Your task to perform on an android device: turn off location history Image 0: 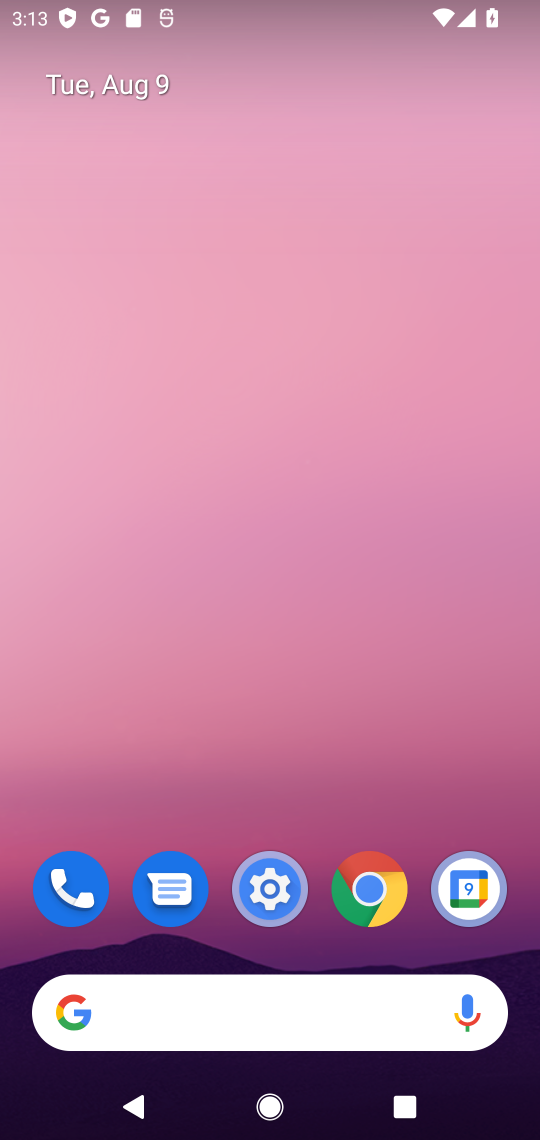
Step 0: click (273, 897)
Your task to perform on an android device: turn off location history Image 1: 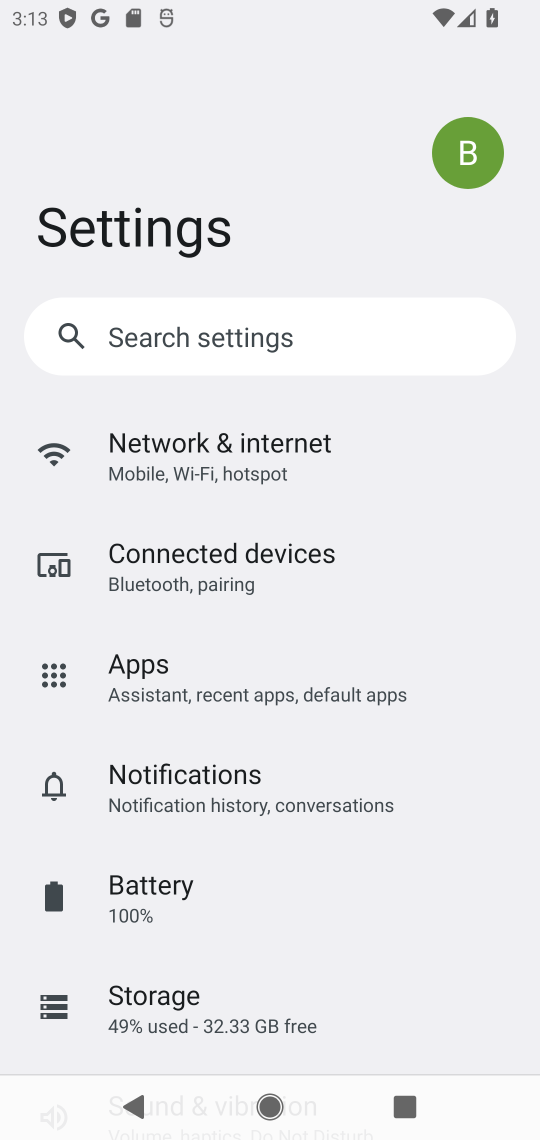
Step 1: drag from (296, 914) to (336, 27)
Your task to perform on an android device: turn off location history Image 2: 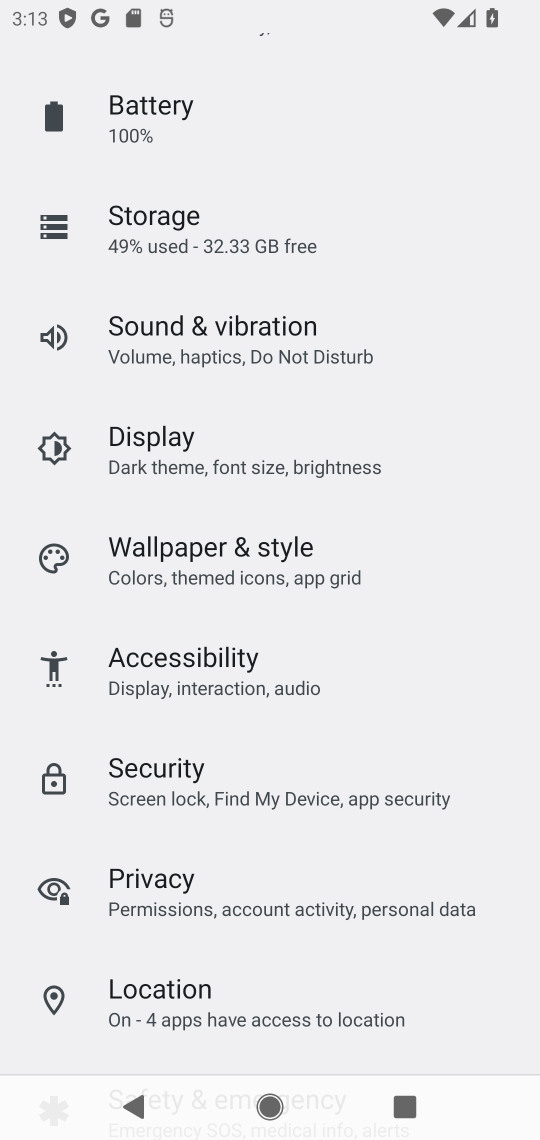
Step 2: click (288, 1003)
Your task to perform on an android device: turn off location history Image 3: 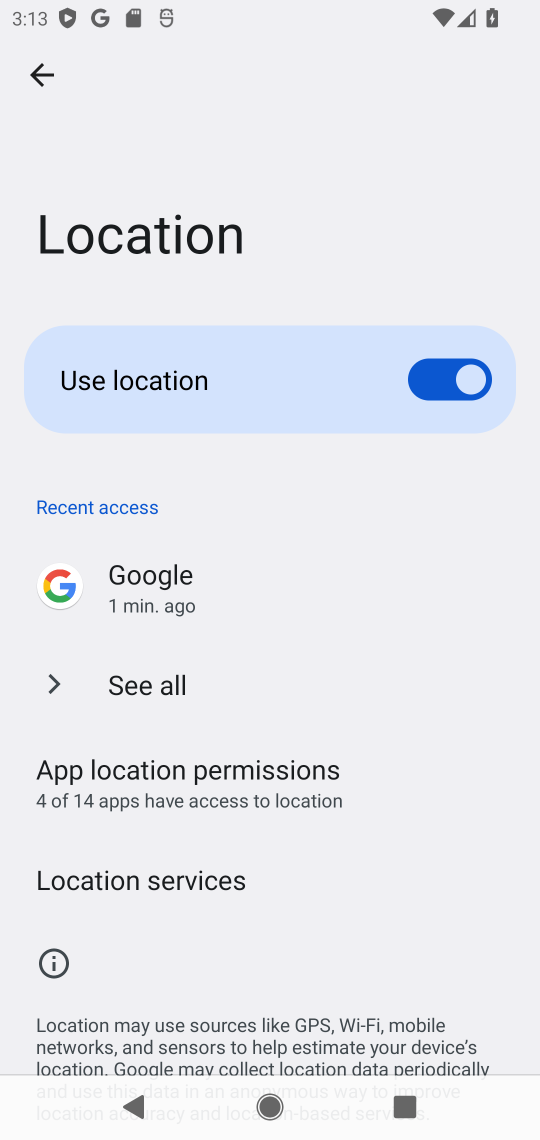
Step 3: click (228, 872)
Your task to perform on an android device: turn off location history Image 4: 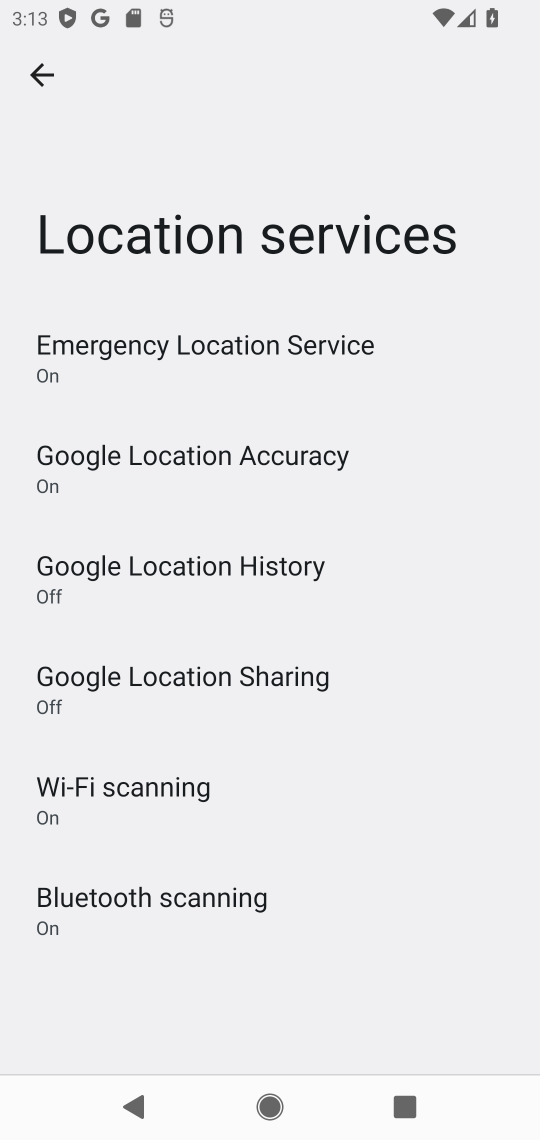
Step 4: task complete